Your task to perform on an android device: What's on my calendar tomorrow? Image 0: 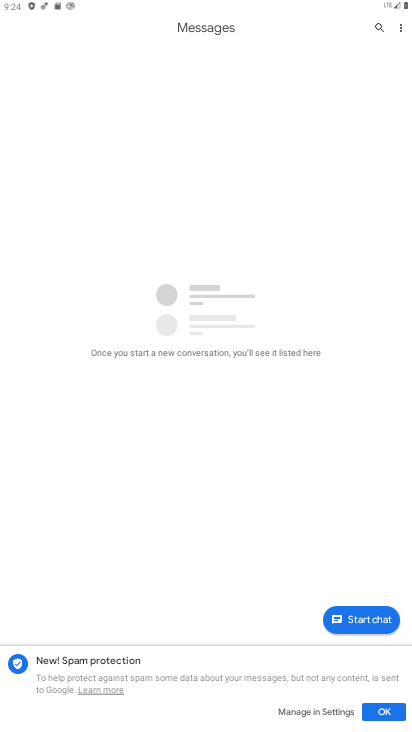
Step 0: press home button
Your task to perform on an android device: What's on my calendar tomorrow? Image 1: 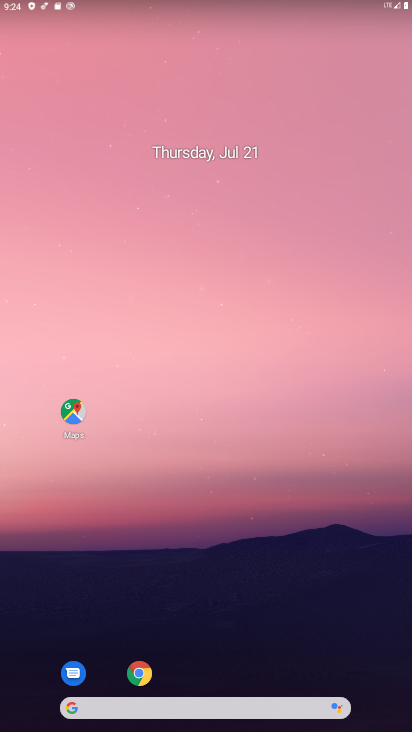
Step 1: drag from (227, 657) to (233, 174)
Your task to perform on an android device: What's on my calendar tomorrow? Image 2: 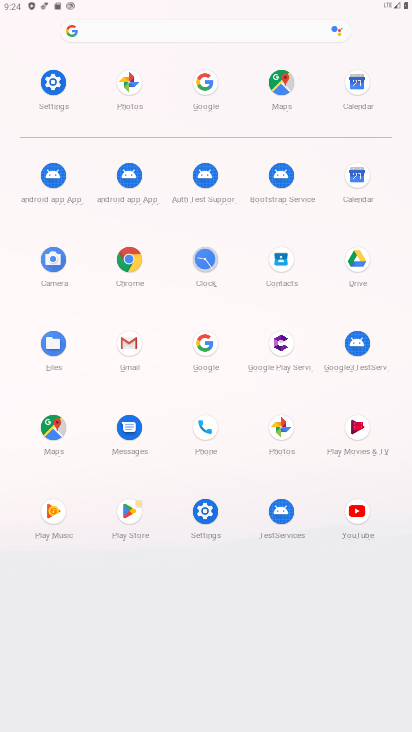
Step 2: click (350, 197)
Your task to perform on an android device: What's on my calendar tomorrow? Image 3: 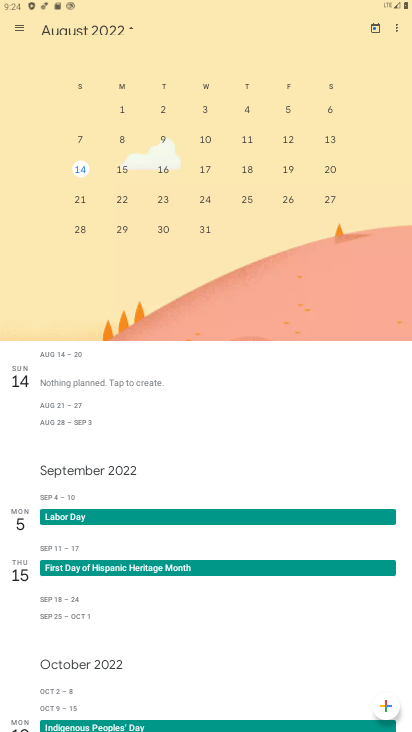
Step 3: drag from (101, 128) to (400, 168)
Your task to perform on an android device: What's on my calendar tomorrow? Image 4: 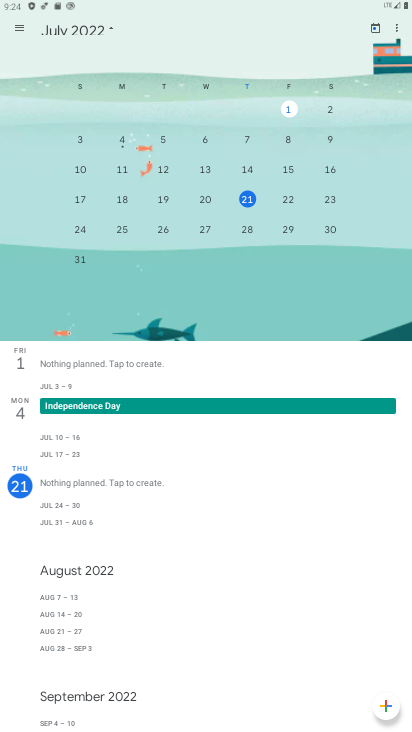
Step 4: click (300, 209)
Your task to perform on an android device: What's on my calendar tomorrow? Image 5: 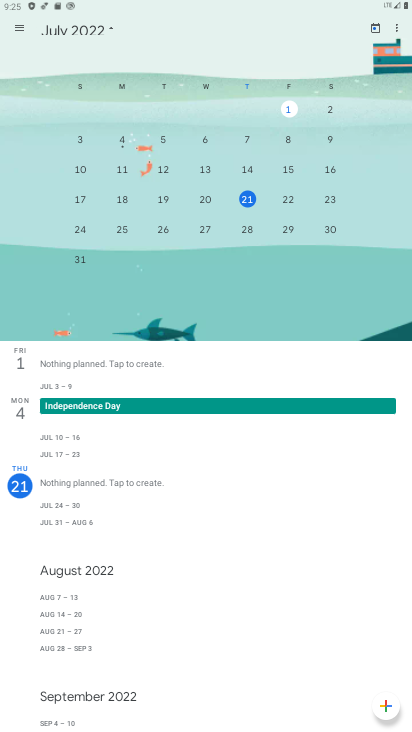
Step 5: task complete